Your task to perform on an android device: star an email in the gmail app Image 0: 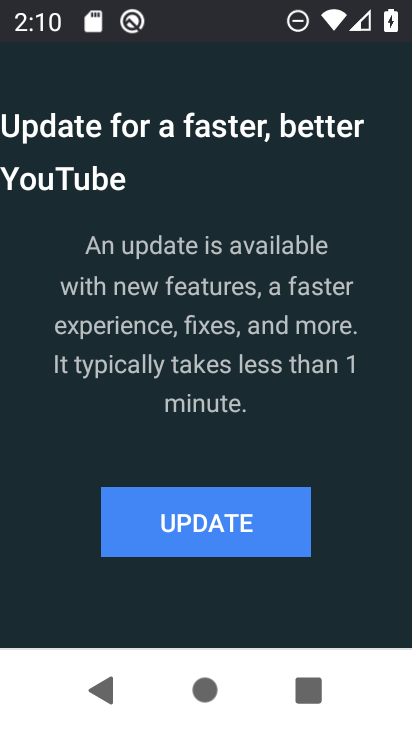
Step 0: press back button
Your task to perform on an android device: star an email in the gmail app Image 1: 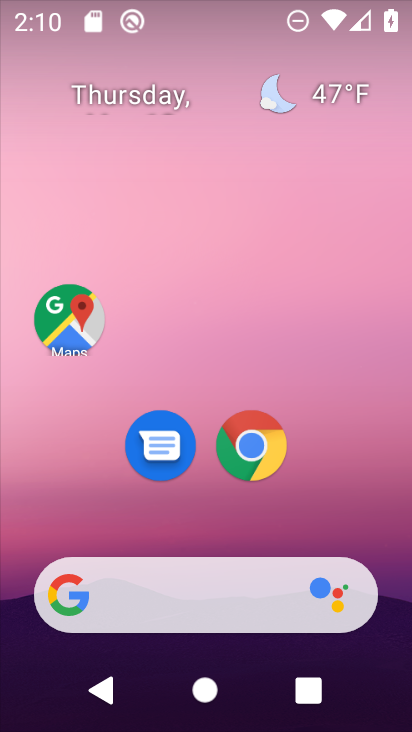
Step 1: drag from (198, 530) to (230, 280)
Your task to perform on an android device: star an email in the gmail app Image 2: 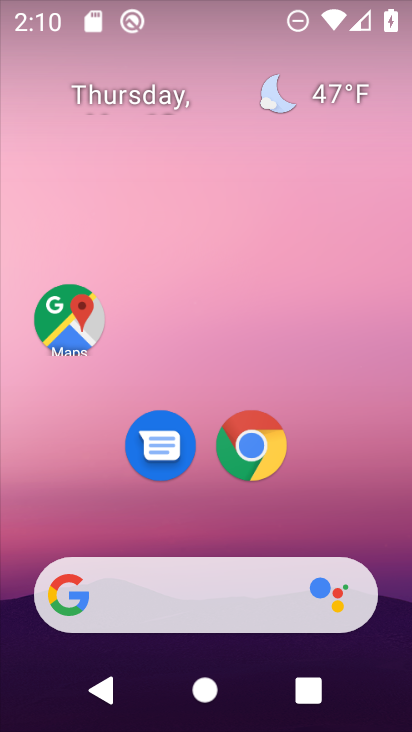
Step 2: drag from (220, 511) to (285, 194)
Your task to perform on an android device: star an email in the gmail app Image 3: 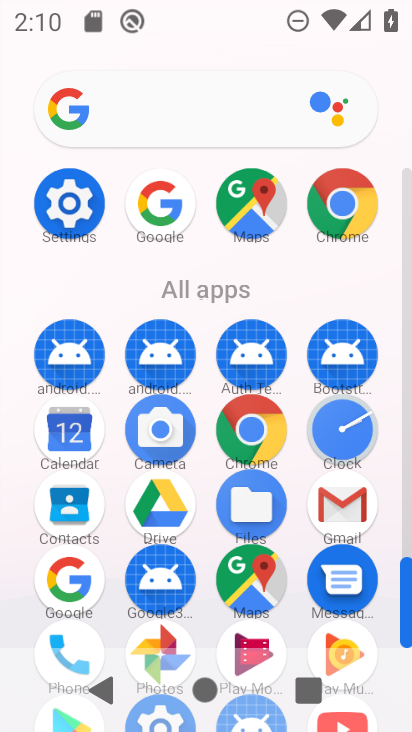
Step 3: click (352, 505)
Your task to perform on an android device: star an email in the gmail app Image 4: 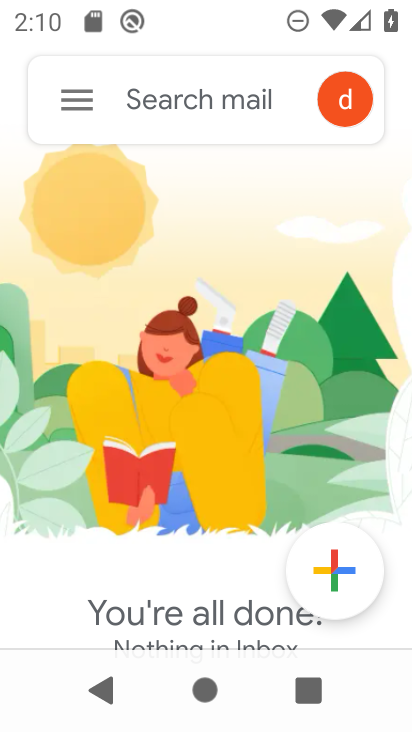
Step 4: click (92, 93)
Your task to perform on an android device: star an email in the gmail app Image 5: 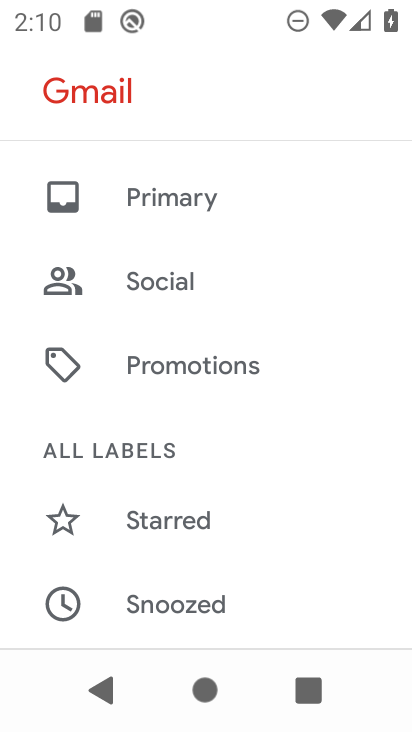
Step 5: drag from (202, 534) to (236, 294)
Your task to perform on an android device: star an email in the gmail app Image 6: 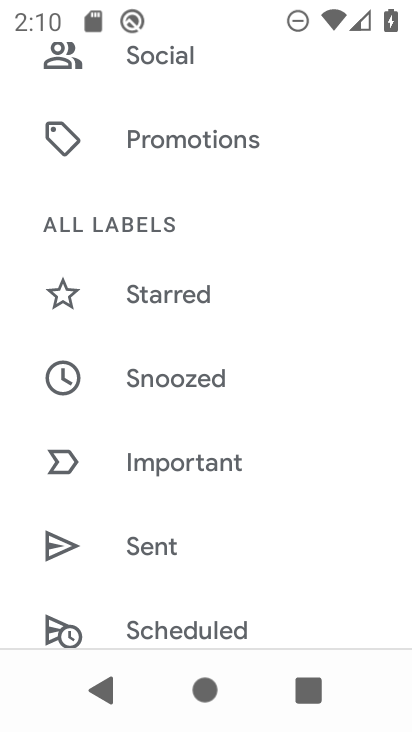
Step 6: drag from (195, 525) to (232, 299)
Your task to perform on an android device: star an email in the gmail app Image 7: 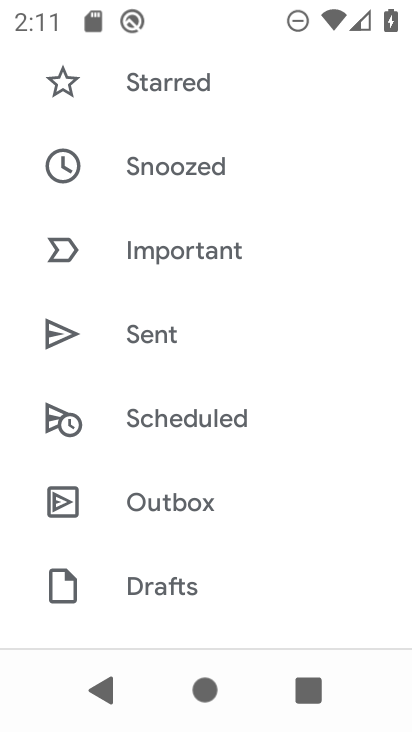
Step 7: drag from (212, 523) to (237, 338)
Your task to perform on an android device: star an email in the gmail app Image 8: 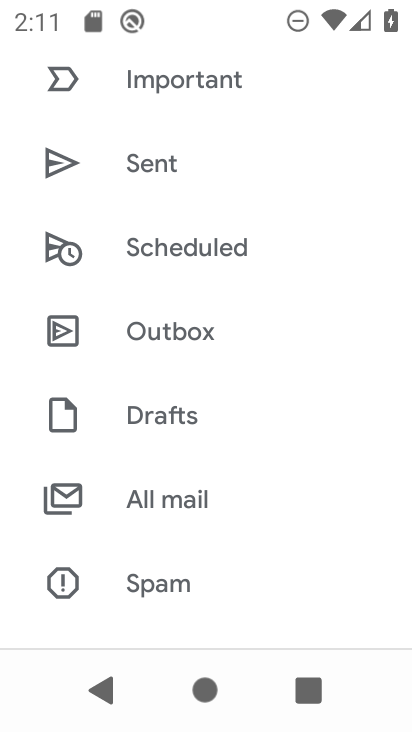
Step 8: click (189, 494)
Your task to perform on an android device: star an email in the gmail app Image 9: 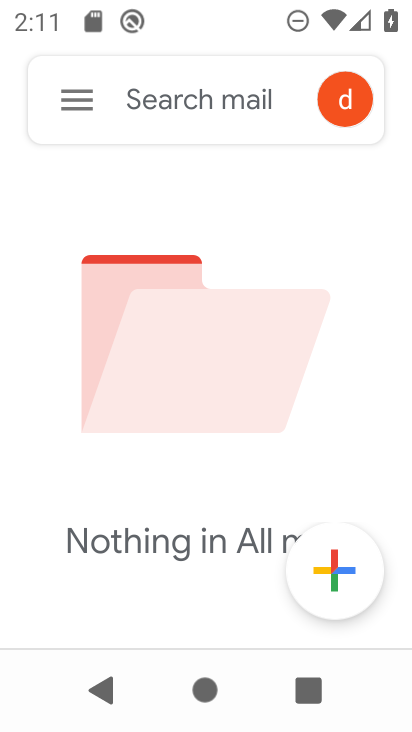
Step 9: click (84, 103)
Your task to perform on an android device: star an email in the gmail app Image 10: 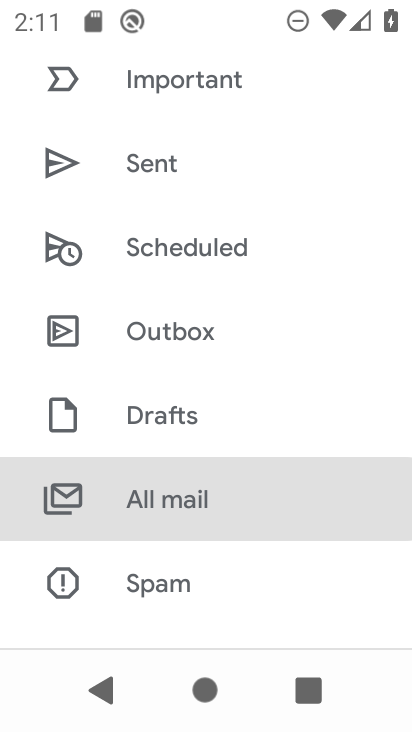
Step 10: click (211, 472)
Your task to perform on an android device: star an email in the gmail app Image 11: 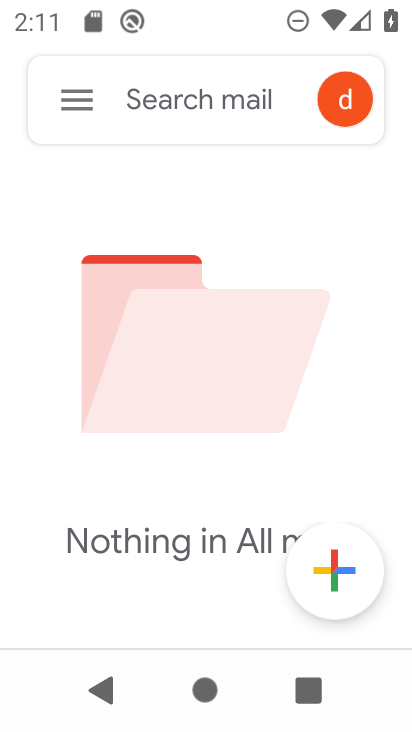
Step 11: task complete